Your task to perform on an android device: open a bookmark in the chrome app Image 0: 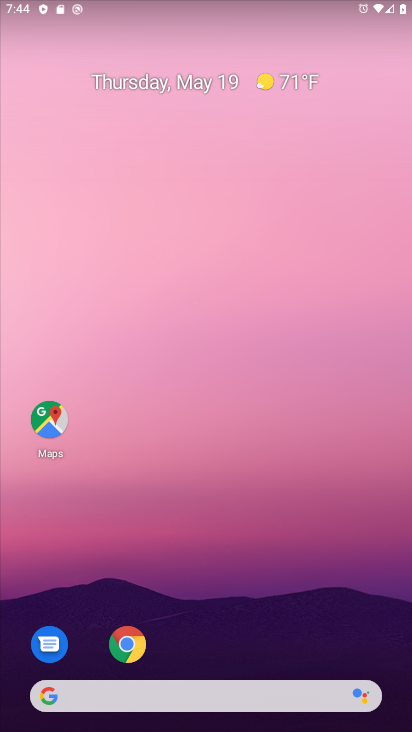
Step 0: click (136, 644)
Your task to perform on an android device: open a bookmark in the chrome app Image 1: 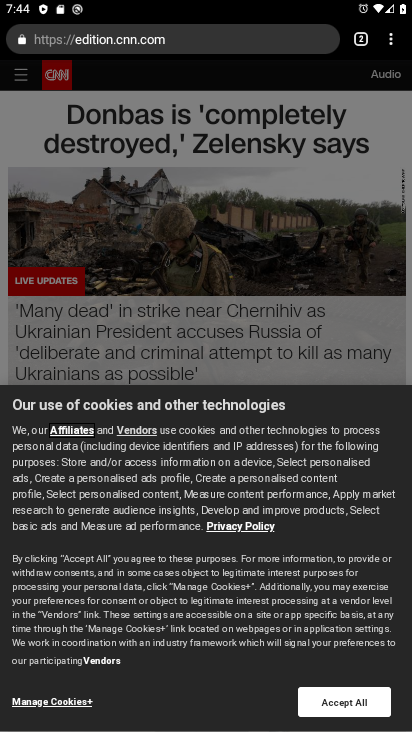
Step 1: click (390, 45)
Your task to perform on an android device: open a bookmark in the chrome app Image 2: 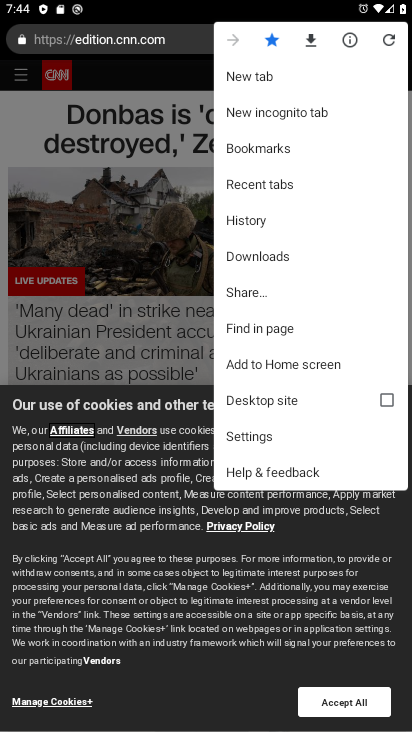
Step 2: click (231, 149)
Your task to perform on an android device: open a bookmark in the chrome app Image 3: 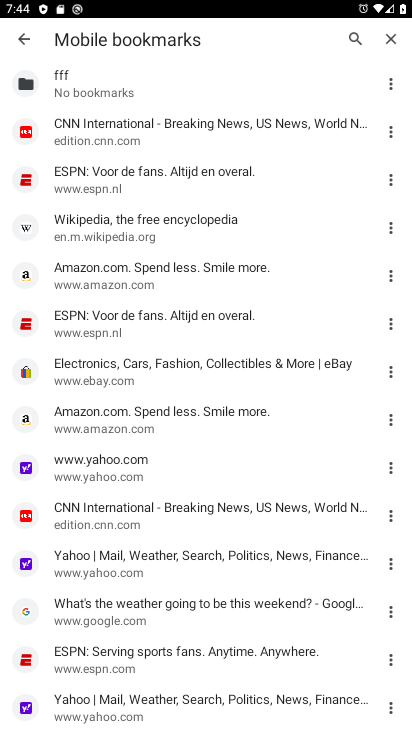
Step 3: task complete